Your task to perform on an android device: Go to Maps Image 0: 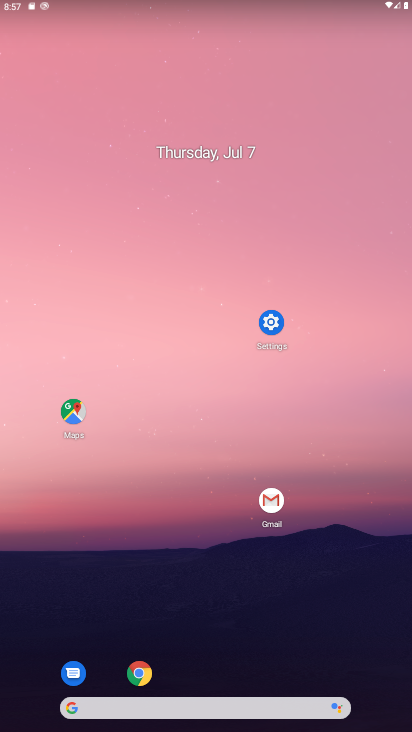
Step 0: click (83, 409)
Your task to perform on an android device: Go to Maps Image 1: 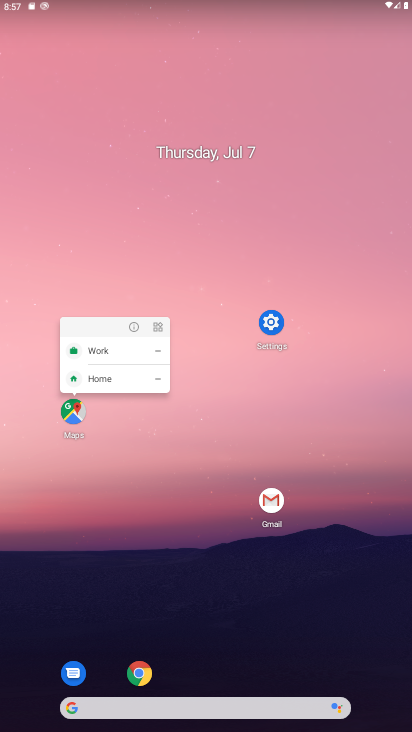
Step 1: click (69, 395)
Your task to perform on an android device: Go to Maps Image 2: 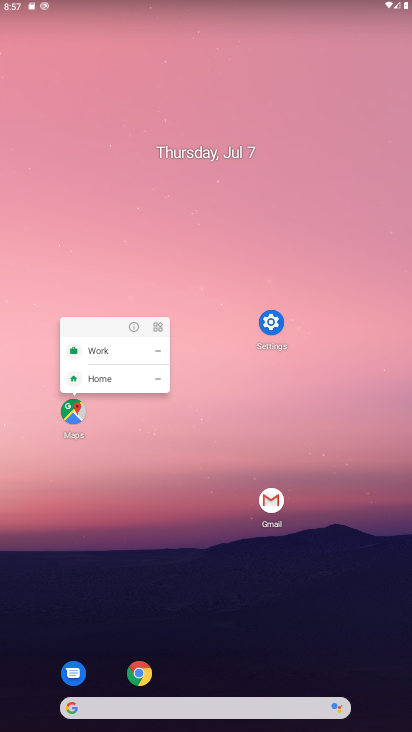
Step 2: click (73, 406)
Your task to perform on an android device: Go to Maps Image 3: 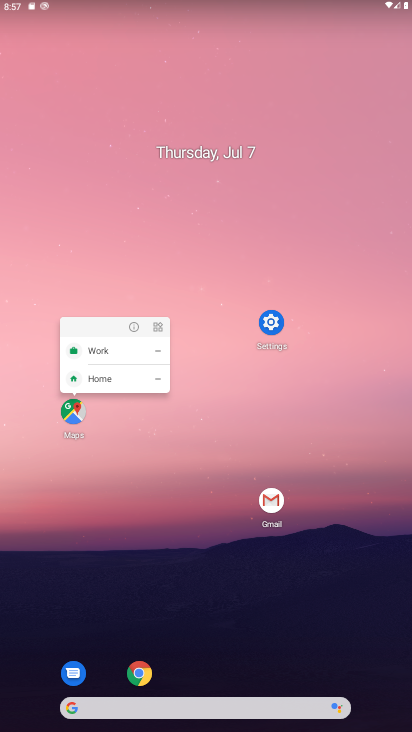
Step 3: click (71, 427)
Your task to perform on an android device: Go to Maps Image 4: 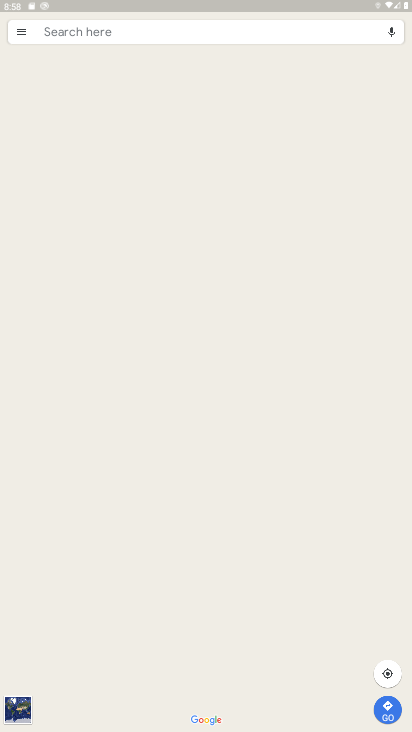
Step 4: task complete